Your task to perform on an android device: toggle wifi Image 0: 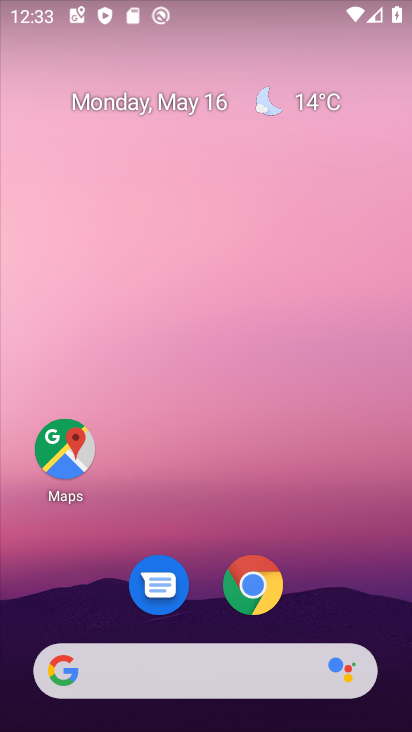
Step 0: drag from (247, 477) to (229, 41)
Your task to perform on an android device: toggle wifi Image 1: 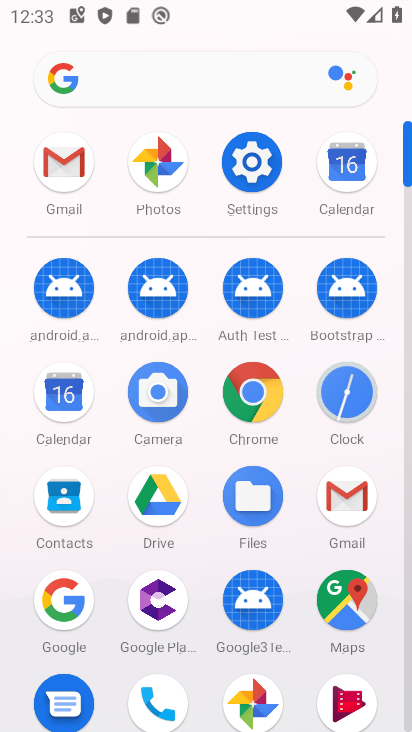
Step 1: click (252, 146)
Your task to perform on an android device: toggle wifi Image 2: 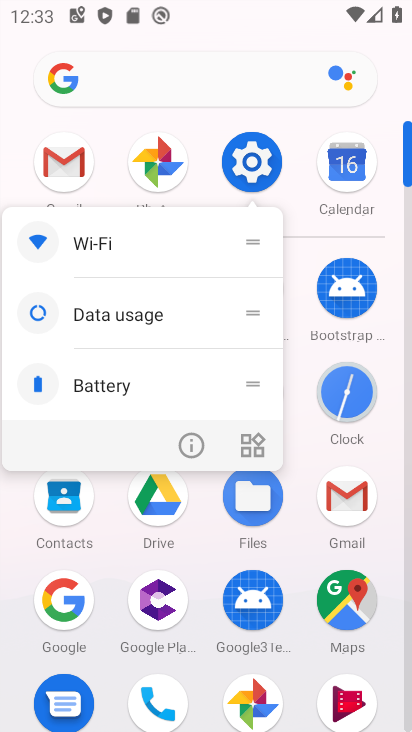
Step 2: click (251, 152)
Your task to perform on an android device: toggle wifi Image 3: 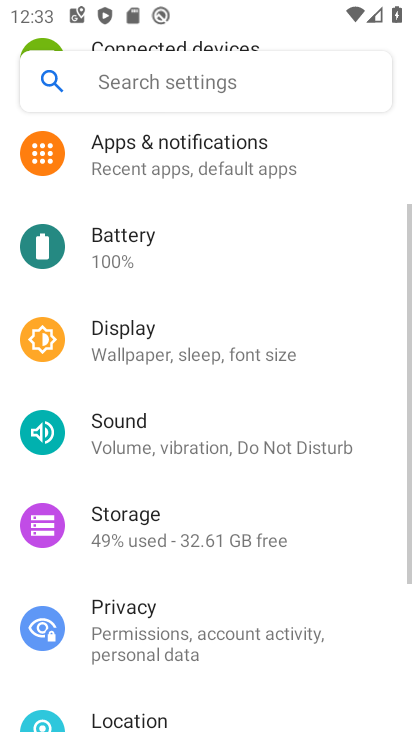
Step 3: drag from (244, 158) to (240, 553)
Your task to perform on an android device: toggle wifi Image 4: 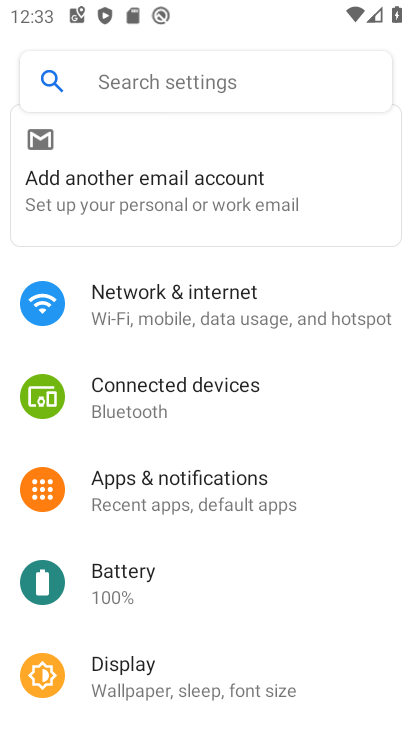
Step 4: click (255, 316)
Your task to perform on an android device: toggle wifi Image 5: 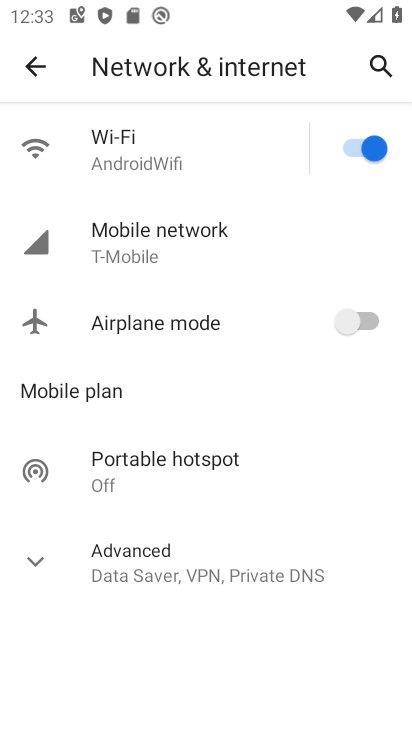
Step 5: click (357, 145)
Your task to perform on an android device: toggle wifi Image 6: 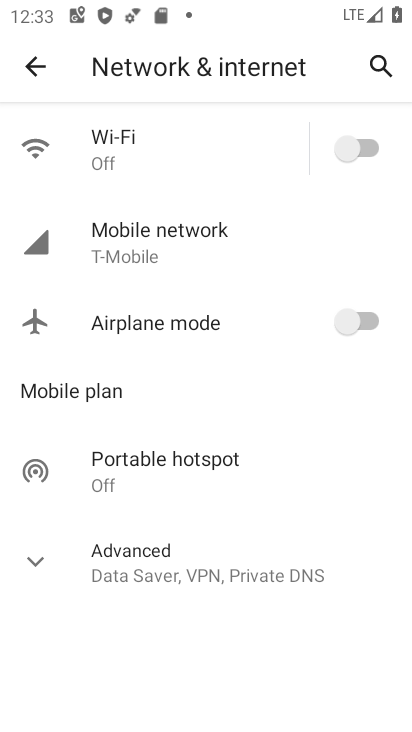
Step 6: task complete